Your task to perform on an android device: allow cookies in the chrome app Image 0: 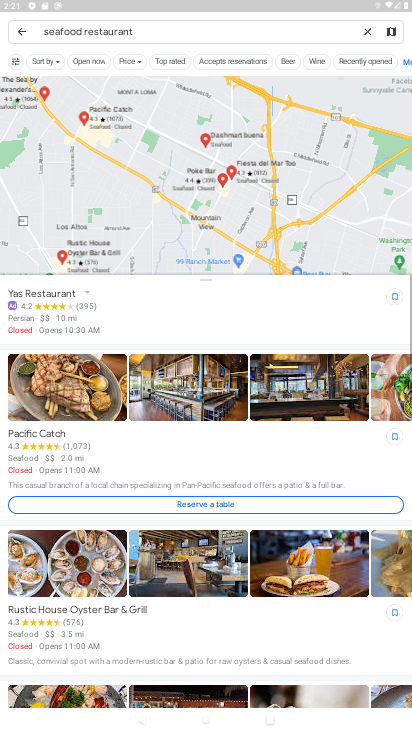
Step 0: press home button
Your task to perform on an android device: allow cookies in the chrome app Image 1: 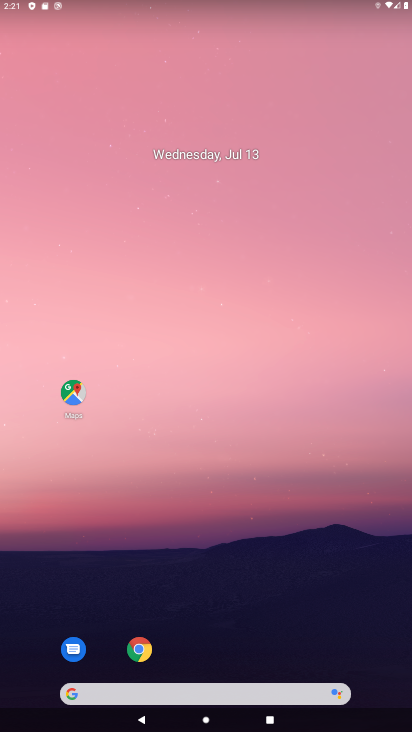
Step 1: click (139, 650)
Your task to perform on an android device: allow cookies in the chrome app Image 2: 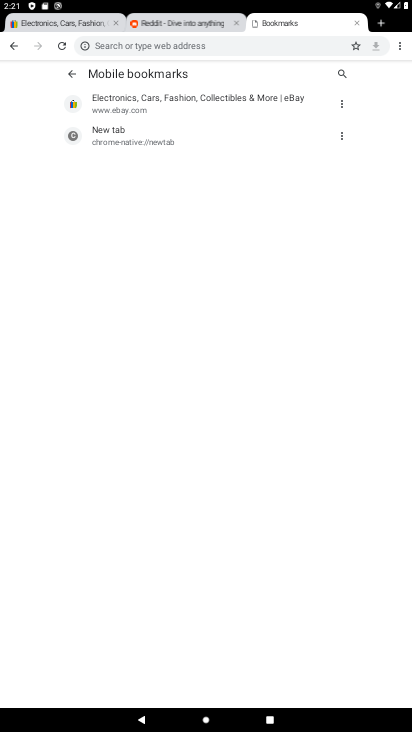
Step 2: click (399, 43)
Your task to perform on an android device: allow cookies in the chrome app Image 3: 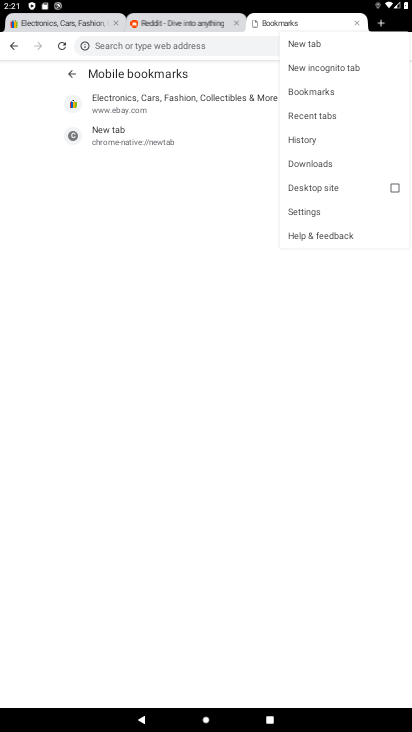
Step 3: click (299, 207)
Your task to perform on an android device: allow cookies in the chrome app Image 4: 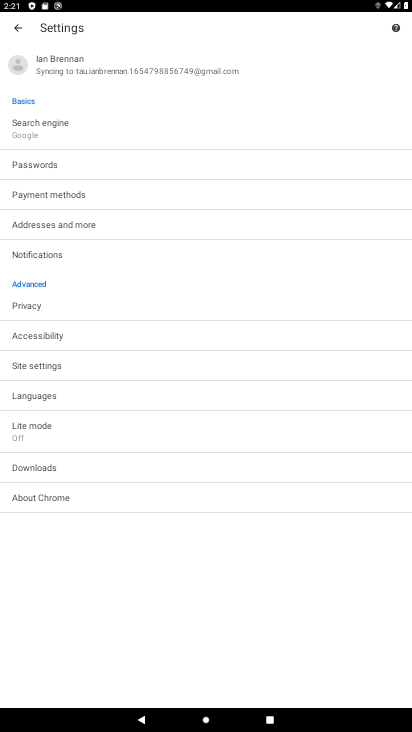
Step 4: click (48, 365)
Your task to perform on an android device: allow cookies in the chrome app Image 5: 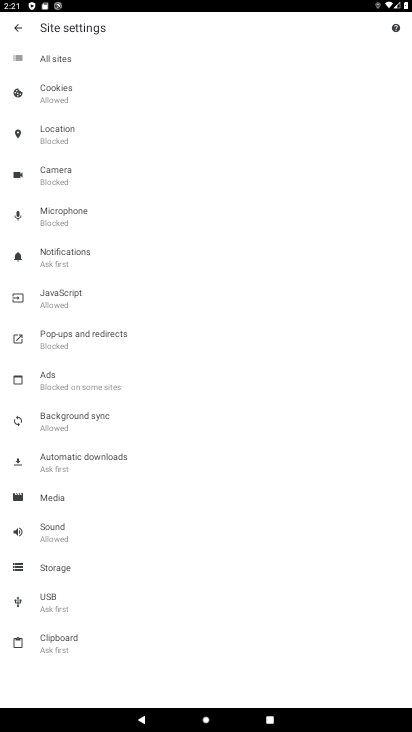
Step 5: click (50, 92)
Your task to perform on an android device: allow cookies in the chrome app Image 6: 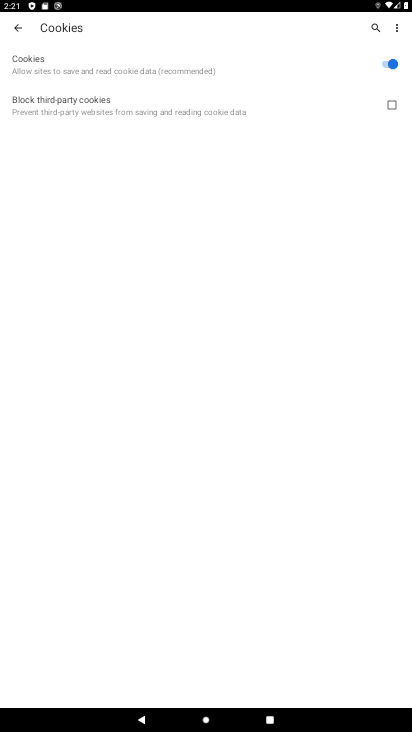
Step 6: task complete